Your task to perform on an android device: Open internet settings Image 0: 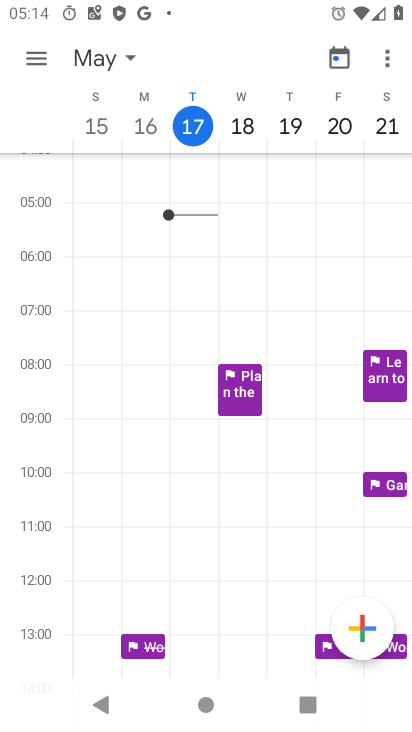
Step 0: press home button
Your task to perform on an android device: Open internet settings Image 1: 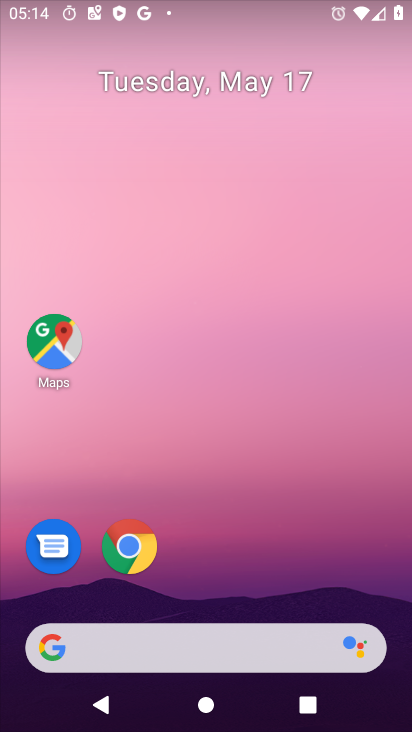
Step 1: drag from (399, 589) to (385, 306)
Your task to perform on an android device: Open internet settings Image 2: 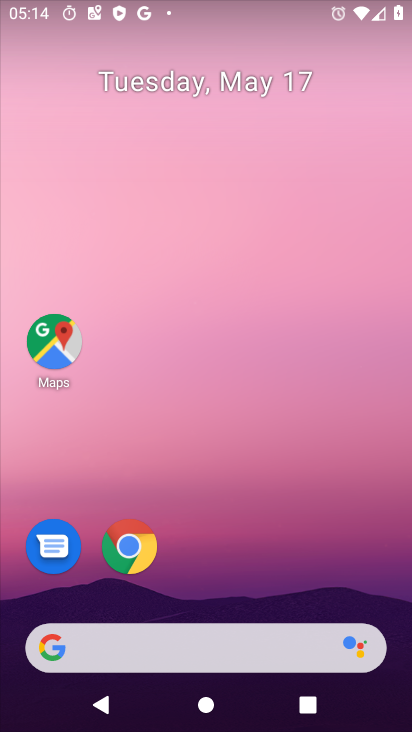
Step 2: drag from (390, 675) to (359, 225)
Your task to perform on an android device: Open internet settings Image 3: 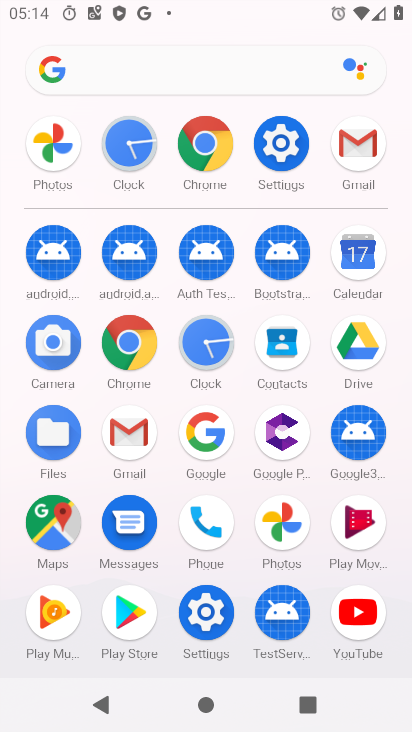
Step 3: click (287, 143)
Your task to perform on an android device: Open internet settings Image 4: 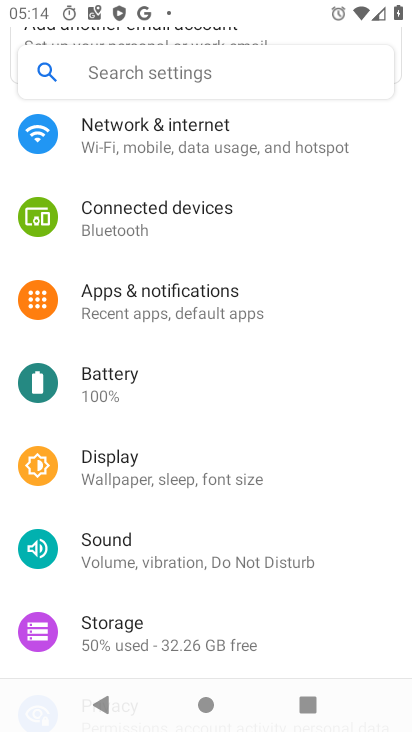
Step 4: drag from (387, 150) to (408, 446)
Your task to perform on an android device: Open internet settings Image 5: 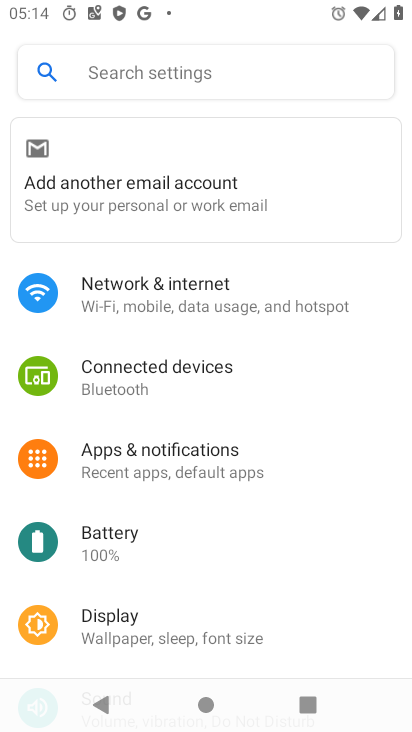
Step 5: click (137, 282)
Your task to perform on an android device: Open internet settings Image 6: 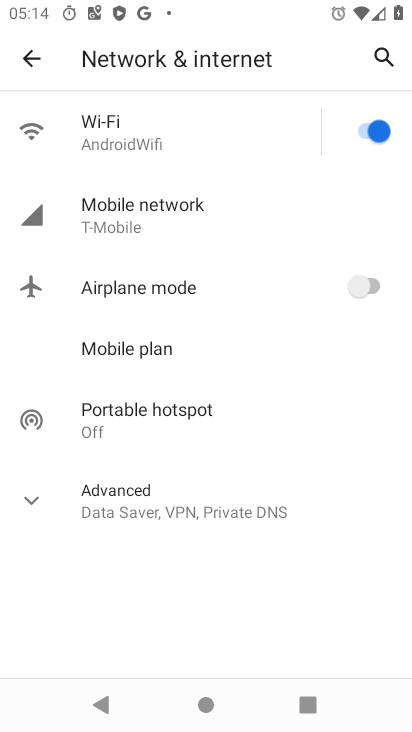
Step 6: task complete